Your task to perform on an android device: Open calendar and show me the second week of next month Image 0: 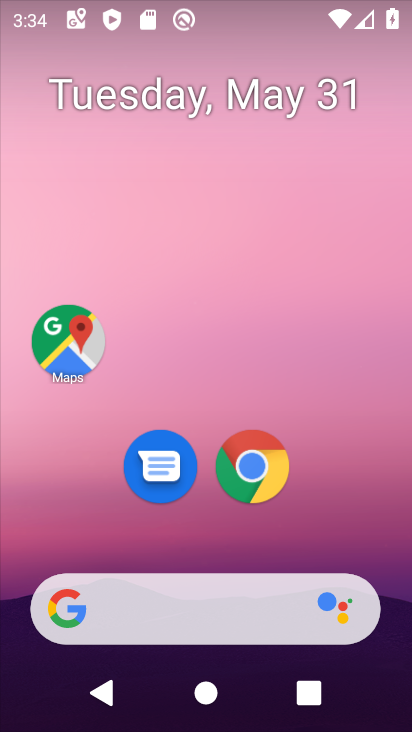
Step 0: drag from (197, 544) to (248, 50)
Your task to perform on an android device: Open calendar and show me the second week of next month Image 1: 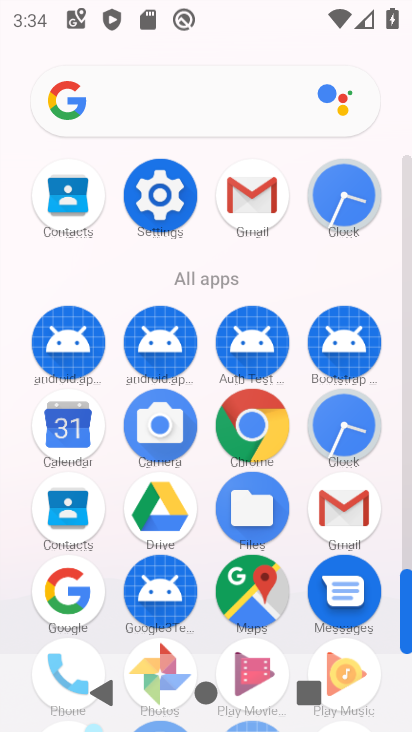
Step 1: click (62, 437)
Your task to perform on an android device: Open calendar and show me the second week of next month Image 2: 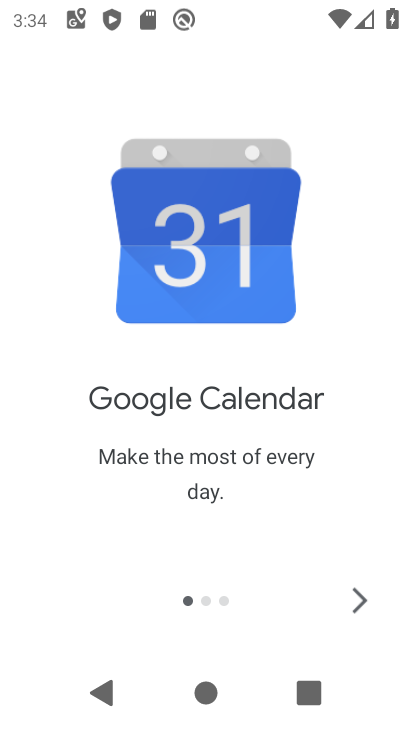
Step 2: click (346, 598)
Your task to perform on an android device: Open calendar and show me the second week of next month Image 3: 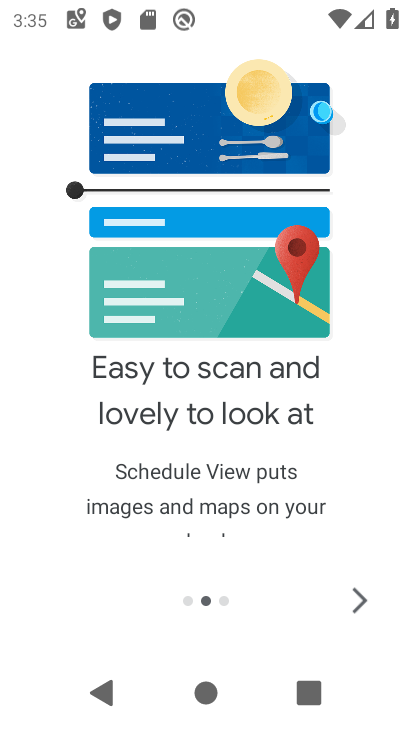
Step 3: click (349, 597)
Your task to perform on an android device: Open calendar and show me the second week of next month Image 4: 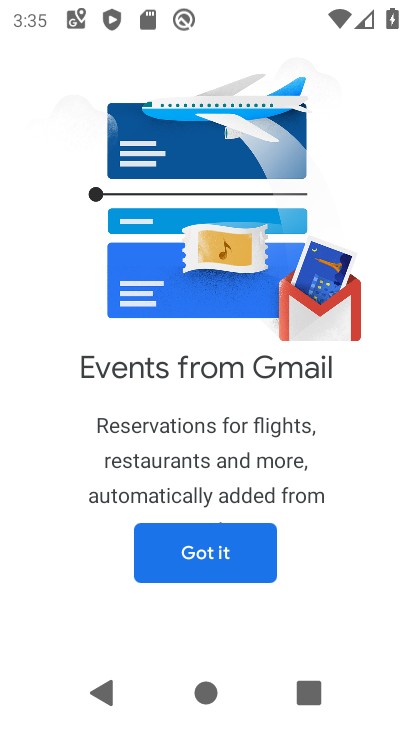
Step 4: click (177, 554)
Your task to perform on an android device: Open calendar and show me the second week of next month Image 5: 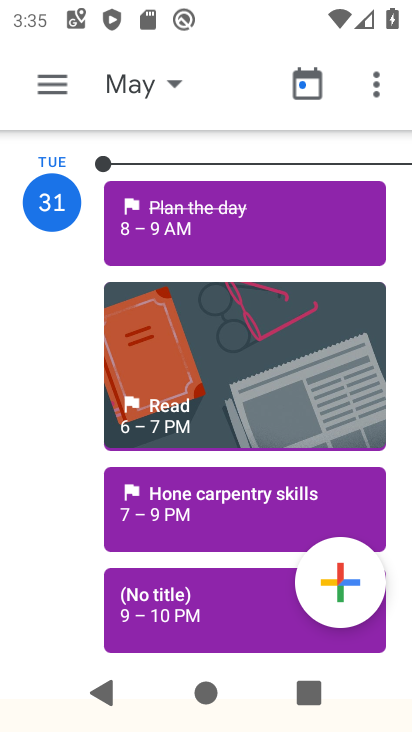
Step 5: click (152, 78)
Your task to perform on an android device: Open calendar and show me the second week of next month Image 6: 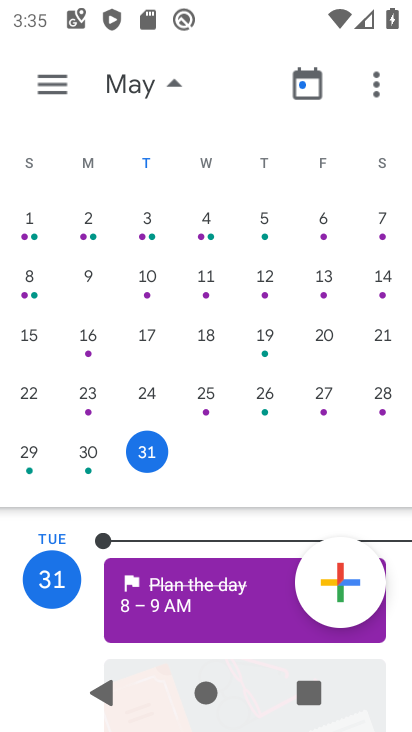
Step 6: drag from (354, 305) to (35, 287)
Your task to perform on an android device: Open calendar and show me the second week of next month Image 7: 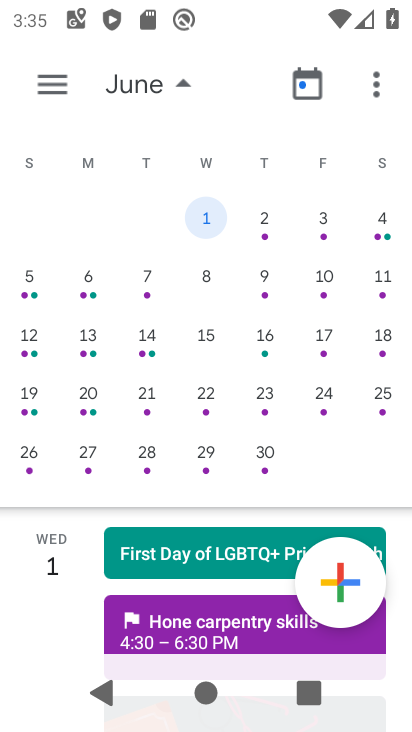
Step 7: click (85, 278)
Your task to perform on an android device: Open calendar and show me the second week of next month Image 8: 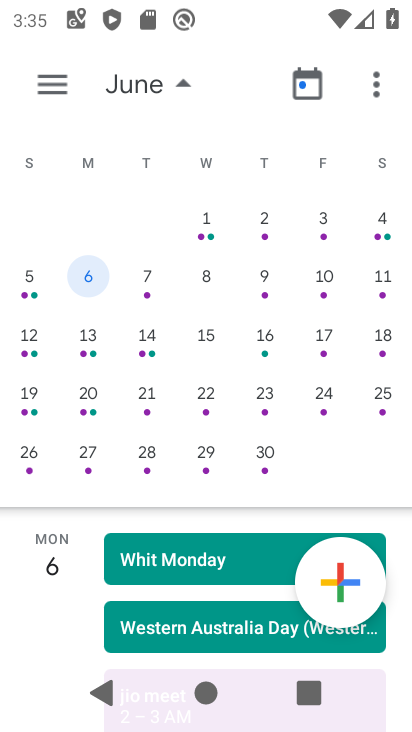
Step 8: task complete